Your task to perform on an android device: Open Android settings Image 0: 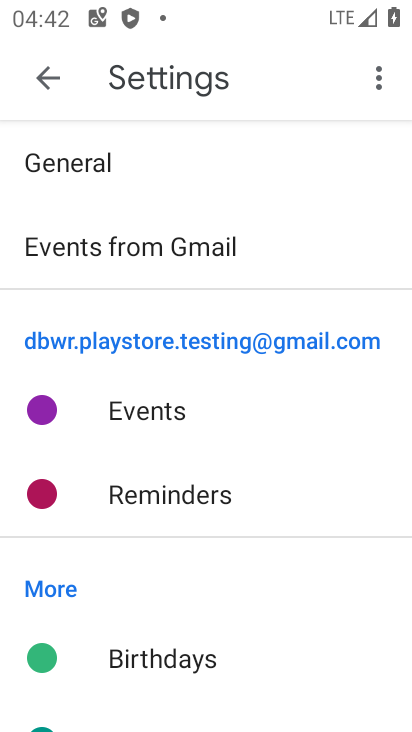
Step 0: press home button
Your task to perform on an android device: Open Android settings Image 1: 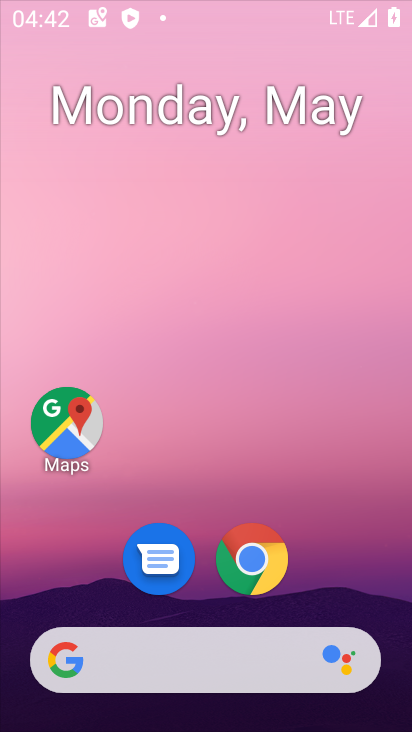
Step 1: drag from (272, 688) to (305, 50)
Your task to perform on an android device: Open Android settings Image 2: 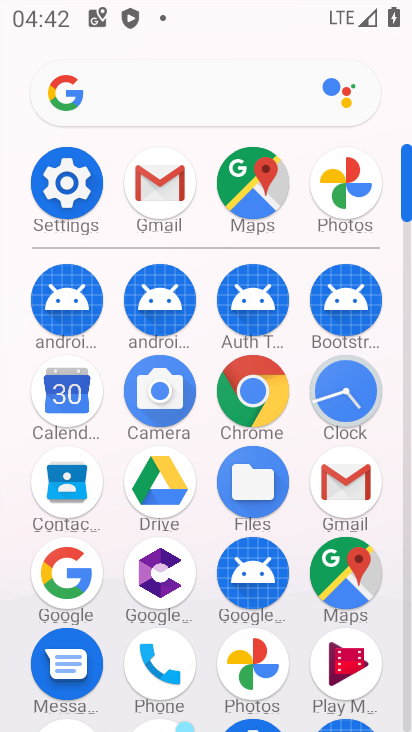
Step 2: click (81, 187)
Your task to perform on an android device: Open Android settings Image 3: 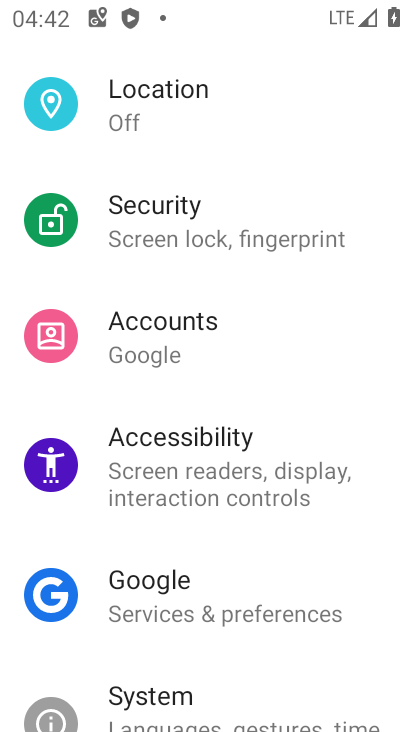
Step 3: drag from (215, 579) to (289, 42)
Your task to perform on an android device: Open Android settings Image 4: 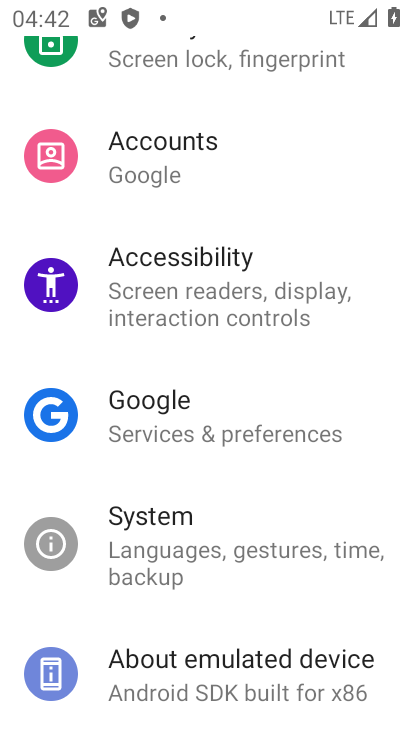
Step 4: click (262, 678)
Your task to perform on an android device: Open Android settings Image 5: 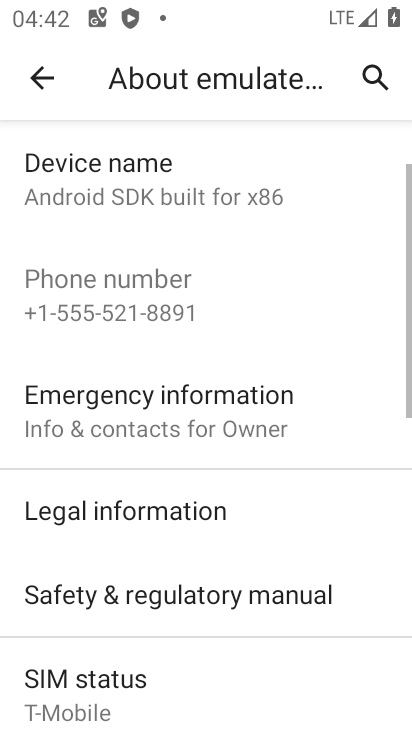
Step 5: task complete